Your task to perform on an android device: turn on translation in the chrome app Image 0: 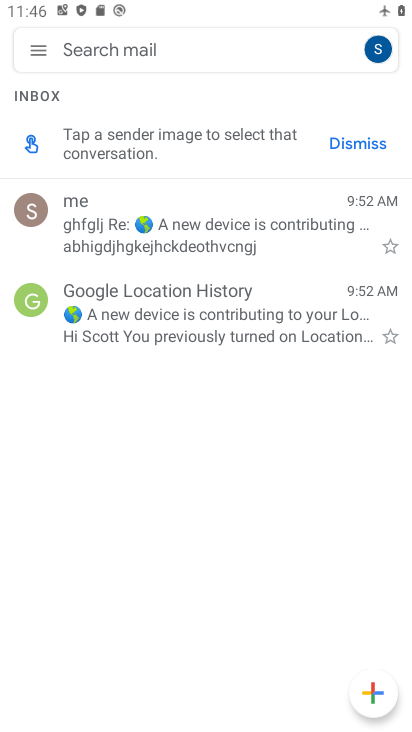
Step 0: press home button
Your task to perform on an android device: turn on translation in the chrome app Image 1: 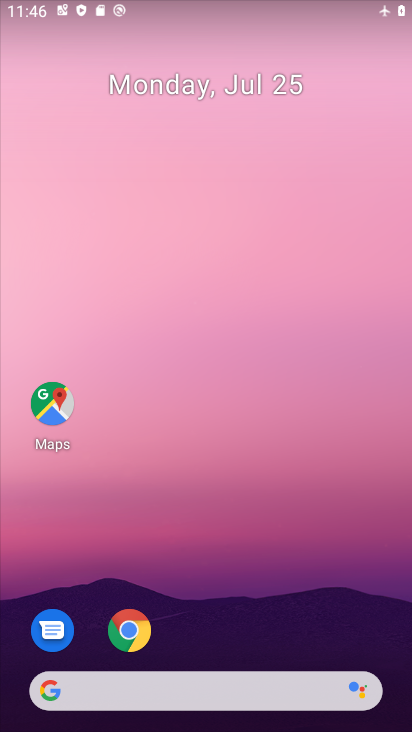
Step 1: drag from (366, 605) to (356, 144)
Your task to perform on an android device: turn on translation in the chrome app Image 2: 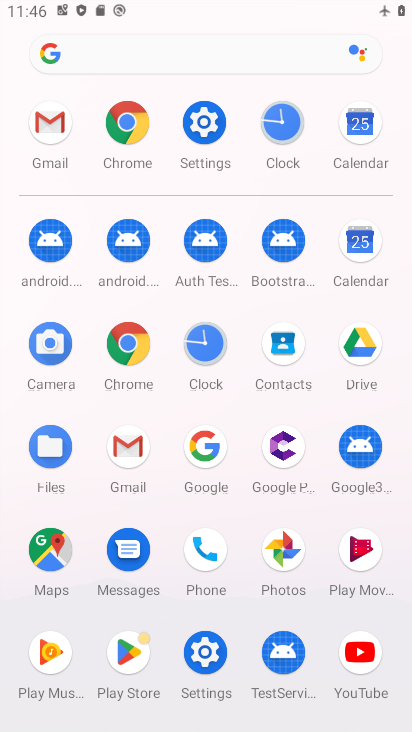
Step 2: click (133, 345)
Your task to perform on an android device: turn on translation in the chrome app Image 3: 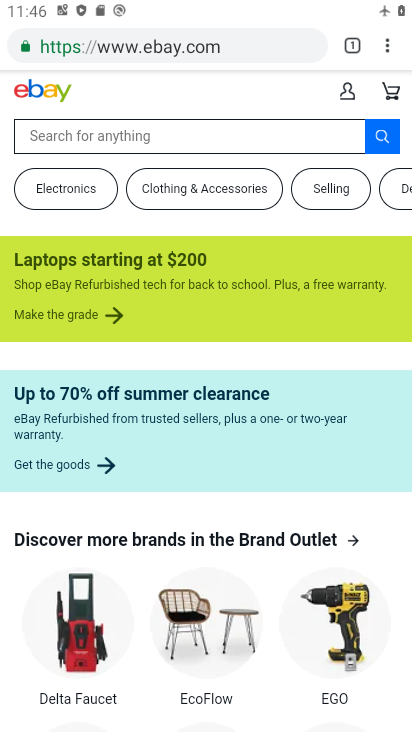
Step 3: click (389, 47)
Your task to perform on an android device: turn on translation in the chrome app Image 4: 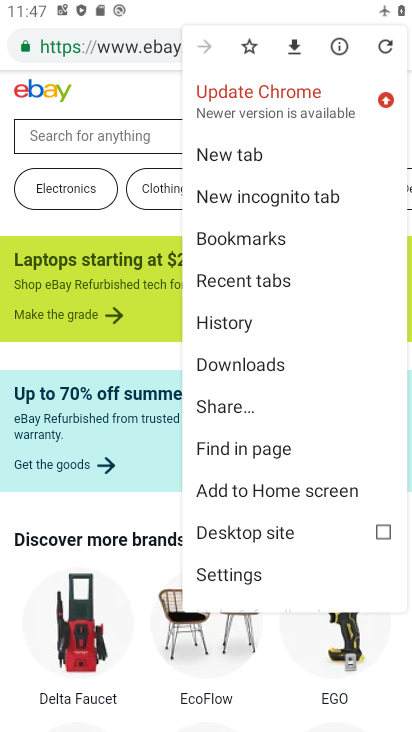
Step 4: click (280, 573)
Your task to perform on an android device: turn on translation in the chrome app Image 5: 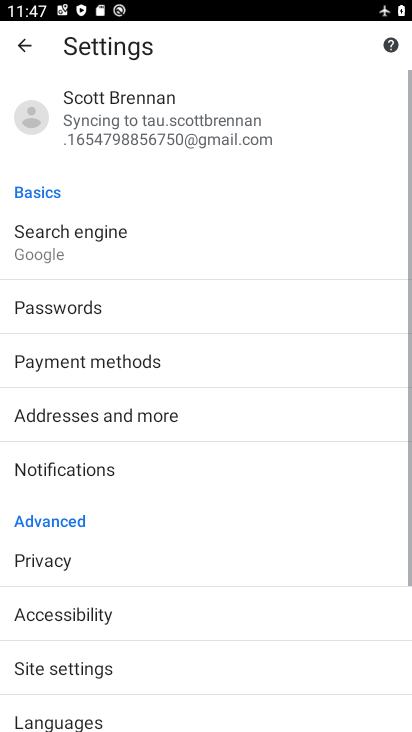
Step 5: drag from (307, 499) to (302, 398)
Your task to perform on an android device: turn on translation in the chrome app Image 6: 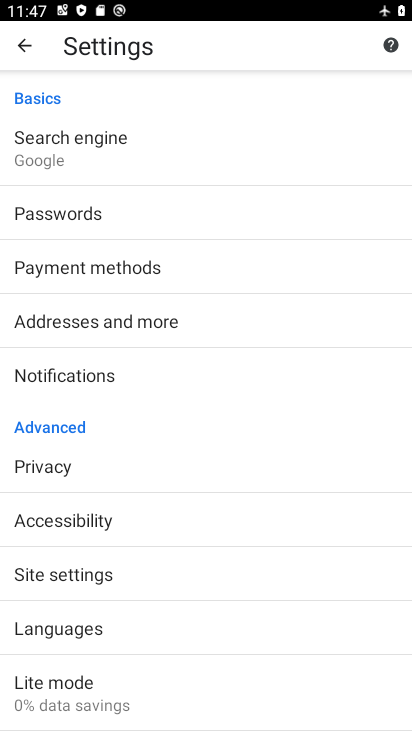
Step 6: drag from (304, 525) to (297, 406)
Your task to perform on an android device: turn on translation in the chrome app Image 7: 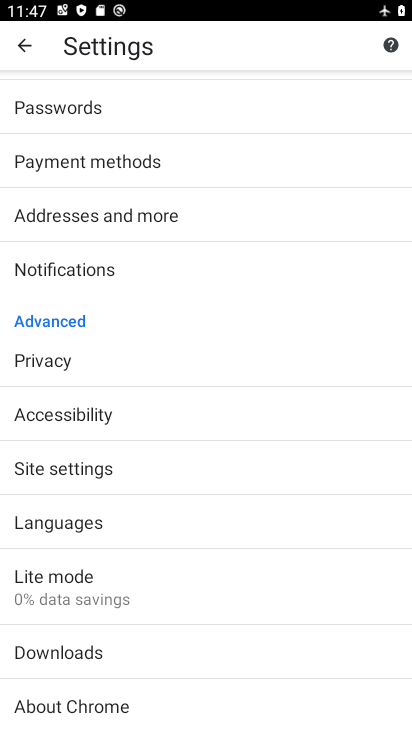
Step 7: click (264, 540)
Your task to perform on an android device: turn on translation in the chrome app Image 8: 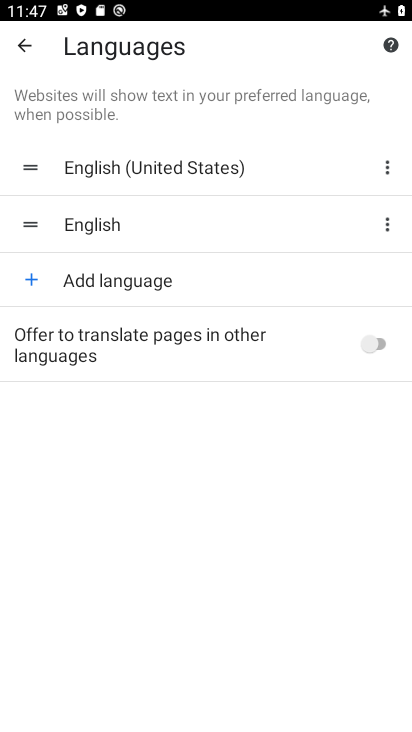
Step 8: click (368, 345)
Your task to perform on an android device: turn on translation in the chrome app Image 9: 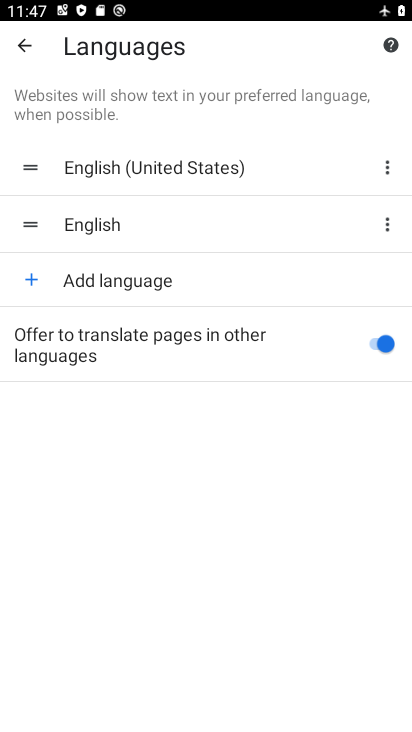
Step 9: task complete